Your task to perform on an android device: open app "ZOOM Cloud Meetings" (install if not already installed) and enter user name: "bauxite@icloud.com" and password: "dim" Image 0: 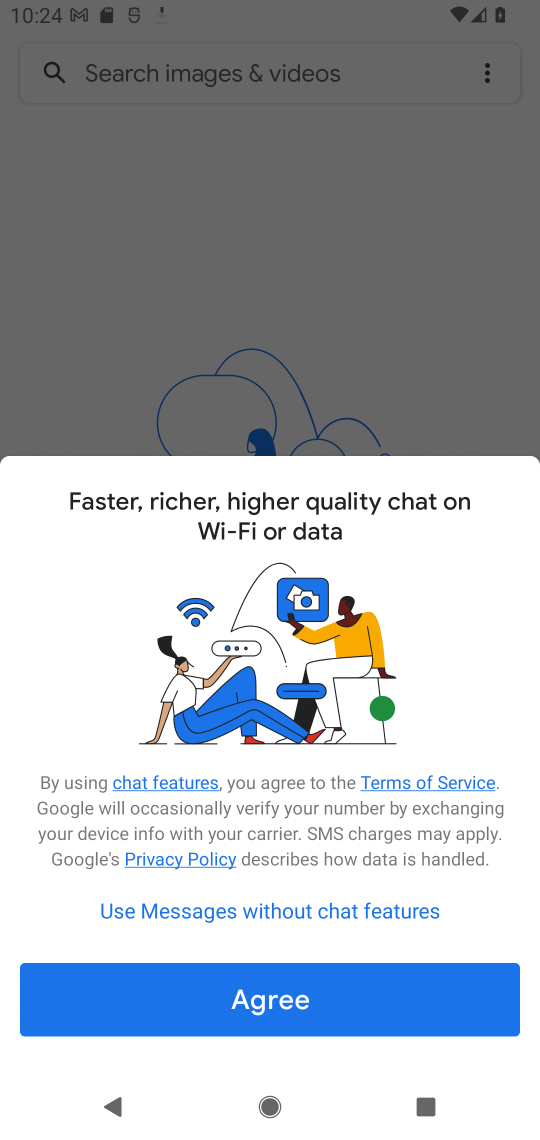
Step 0: press home button
Your task to perform on an android device: open app "ZOOM Cloud Meetings" (install if not already installed) and enter user name: "bauxite@icloud.com" and password: "dim" Image 1: 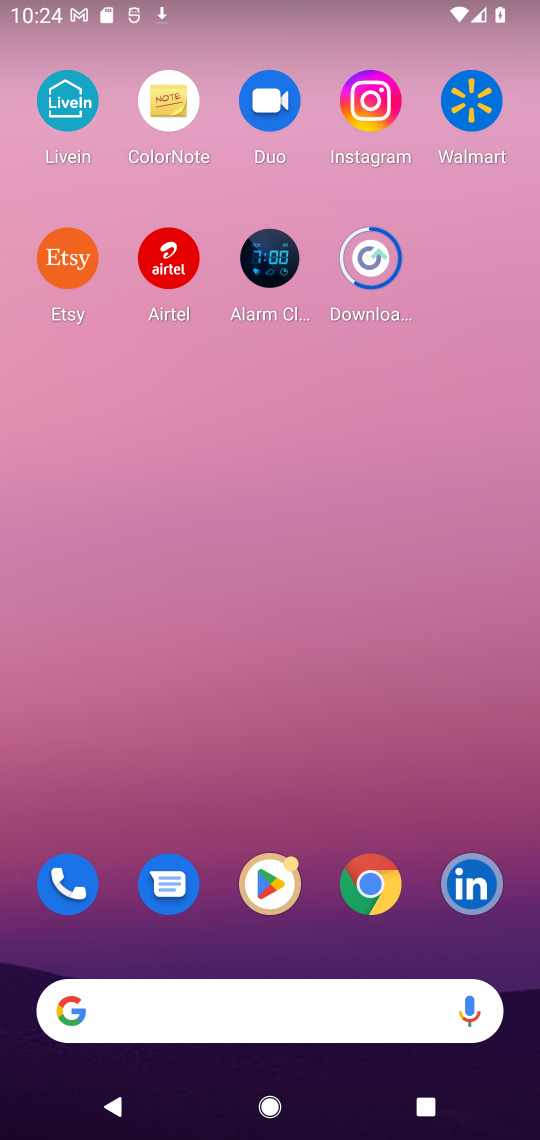
Step 1: click (282, 872)
Your task to perform on an android device: open app "ZOOM Cloud Meetings" (install if not already installed) and enter user name: "bauxite@icloud.com" and password: "dim" Image 2: 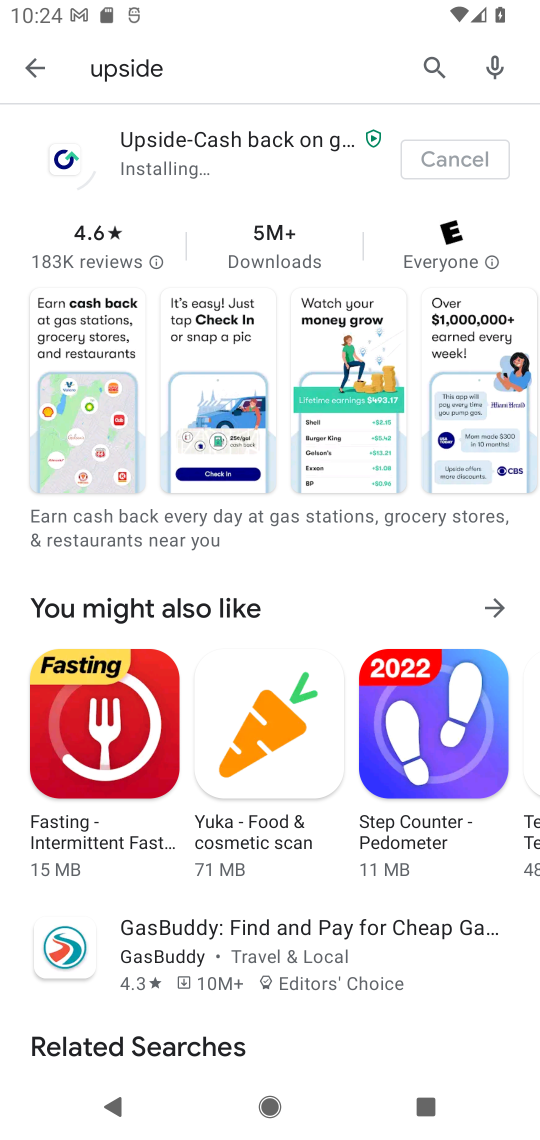
Step 2: click (416, 64)
Your task to perform on an android device: open app "ZOOM Cloud Meetings" (install if not already installed) and enter user name: "bauxite@icloud.com" and password: "dim" Image 3: 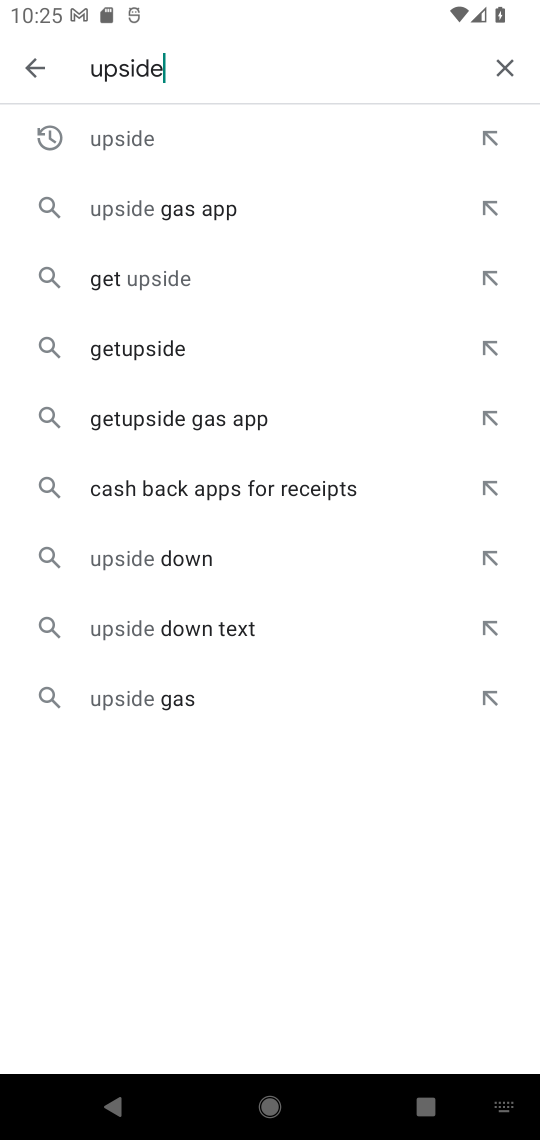
Step 3: click (499, 71)
Your task to perform on an android device: open app "ZOOM Cloud Meetings" (install if not already installed) and enter user name: "bauxite@icloud.com" and password: "dim" Image 4: 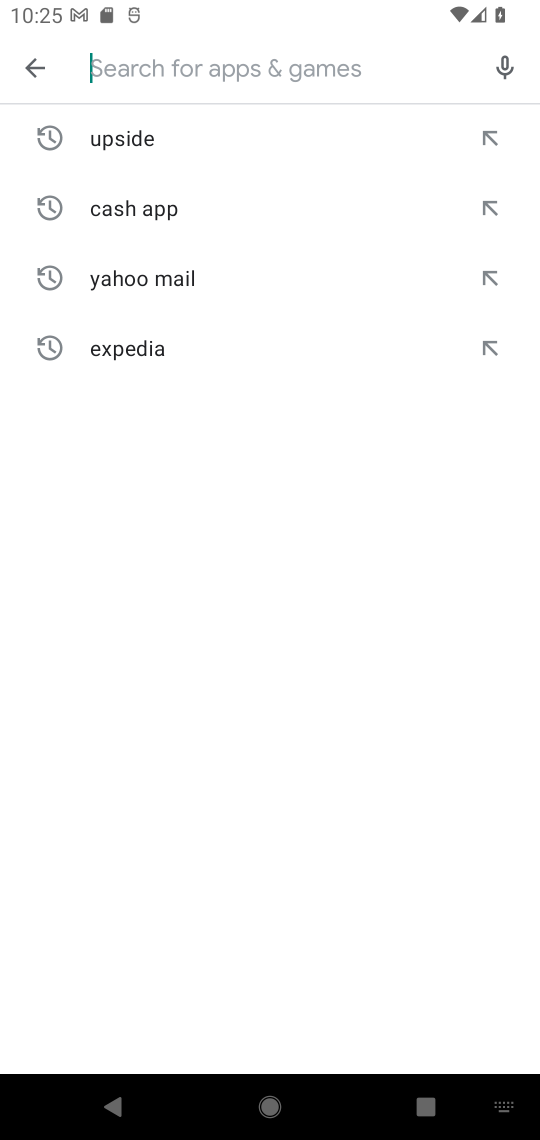
Step 4: type "zoom"
Your task to perform on an android device: open app "ZOOM Cloud Meetings" (install if not already installed) and enter user name: "bauxite@icloud.com" and password: "dim" Image 5: 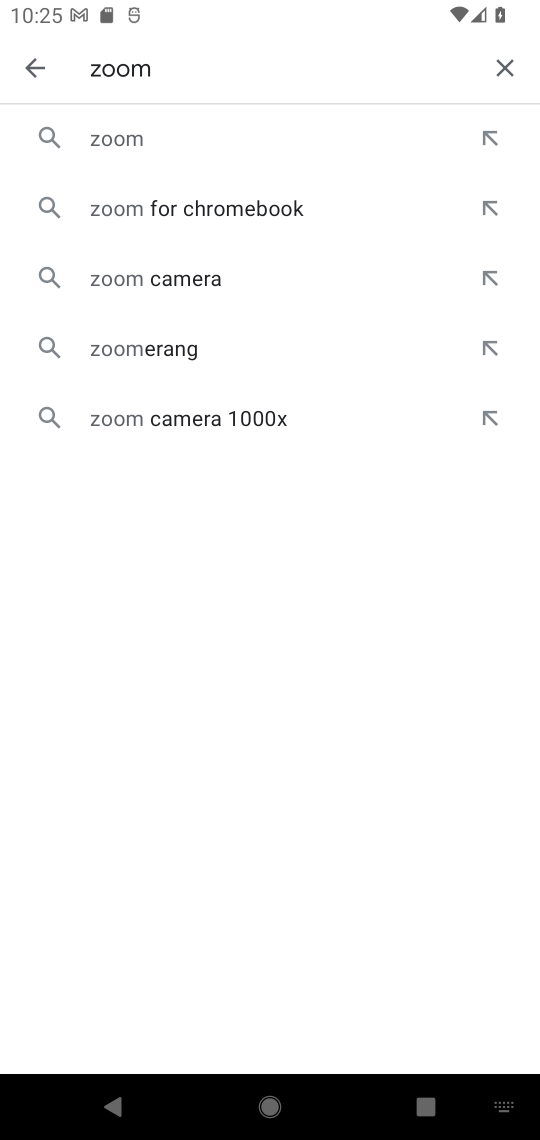
Step 5: click (168, 157)
Your task to perform on an android device: open app "ZOOM Cloud Meetings" (install if not already installed) and enter user name: "bauxite@icloud.com" and password: "dim" Image 6: 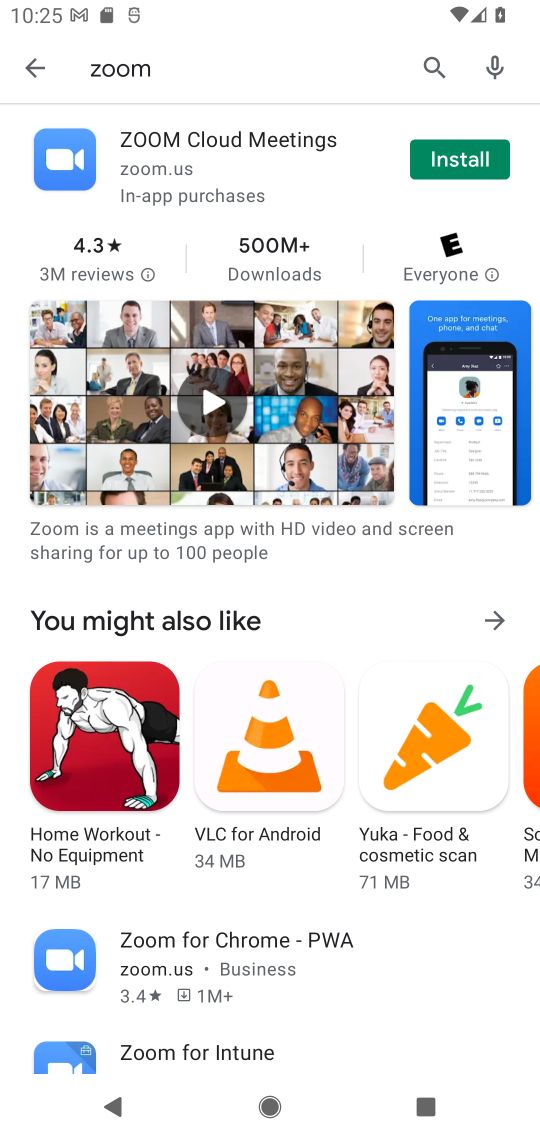
Step 6: click (449, 140)
Your task to perform on an android device: open app "ZOOM Cloud Meetings" (install if not already installed) and enter user name: "bauxite@icloud.com" and password: "dim" Image 7: 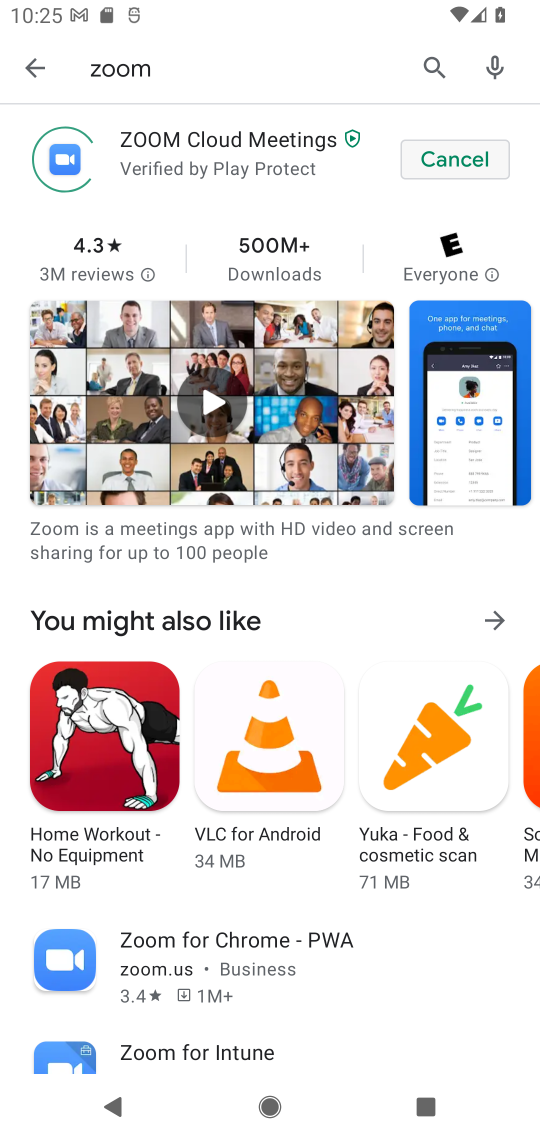
Step 7: task complete